Your task to perform on an android device: toggle notifications settings in the gmail app Image 0: 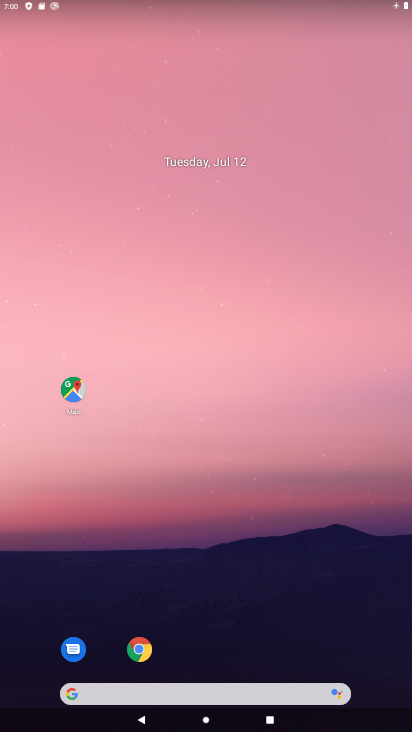
Step 0: drag from (174, 645) to (184, 76)
Your task to perform on an android device: toggle notifications settings in the gmail app Image 1: 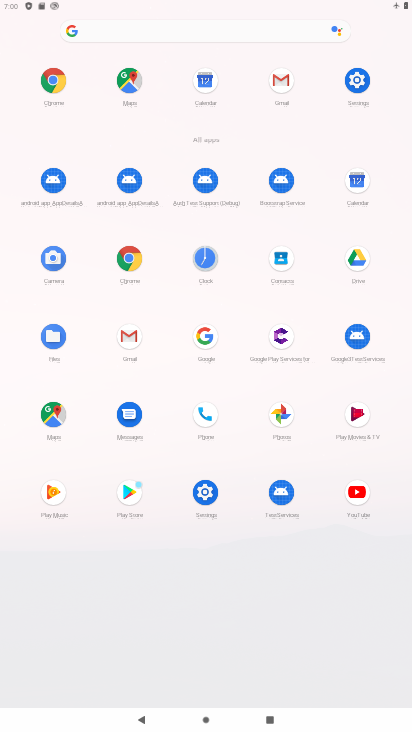
Step 1: click (280, 74)
Your task to perform on an android device: toggle notifications settings in the gmail app Image 2: 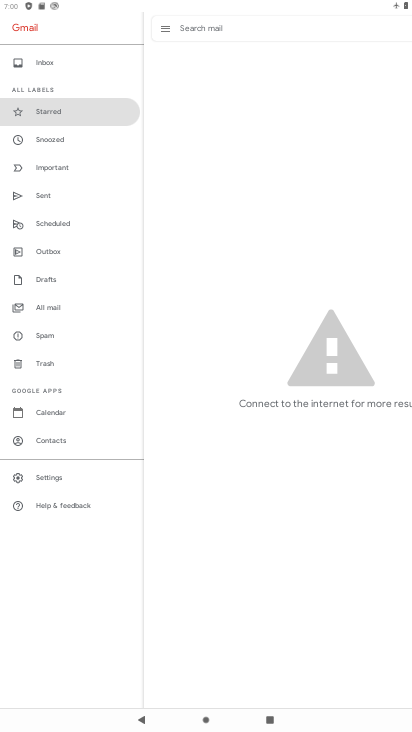
Step 2: click (49, 477)
Your task to perform on an android device: toggle notifications settings in the gmail app Image 3: 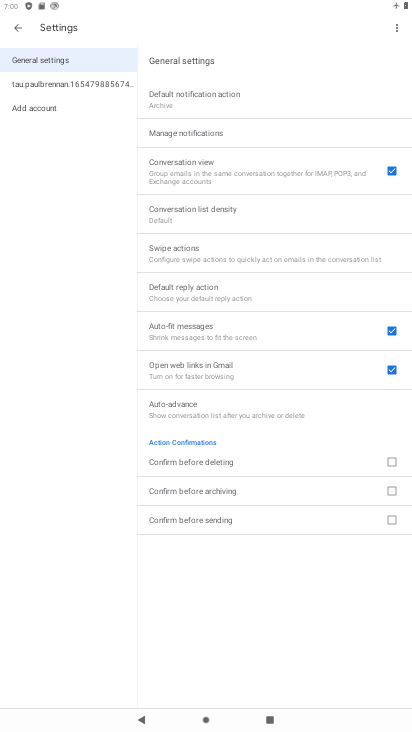
Step 3: click (91, 83)
Your task to perform on an android device: toggle notifications settings in the gmail app Image 4: 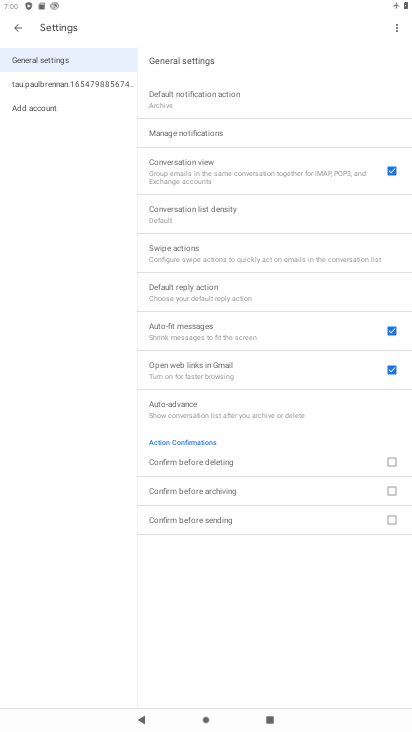
Step 4: click (91, 83)
Your task to perform on an android device: toggle notifications settings in the gmail app Image 5: 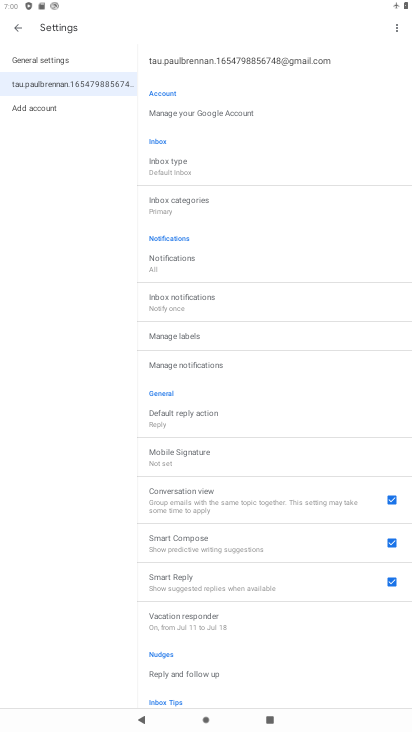
Step 5: click (185, 367)
Your task to perform on an android device: toggle notifications settings in the gmail app Image 6: 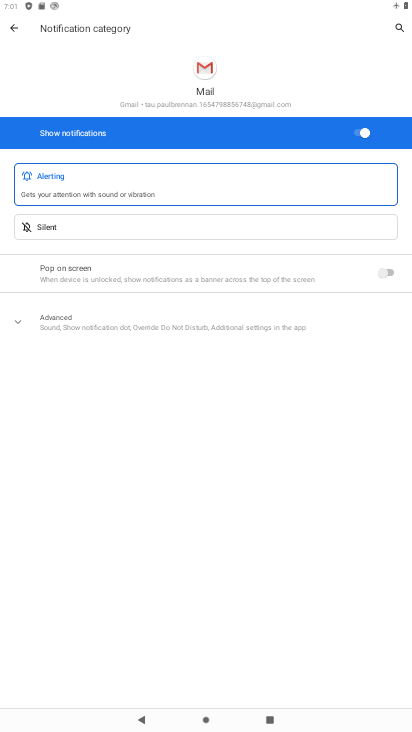
Step 6: click (359, 139)
Your task to perform on an android device: toggle notifications settings in the gmail app Image 7: 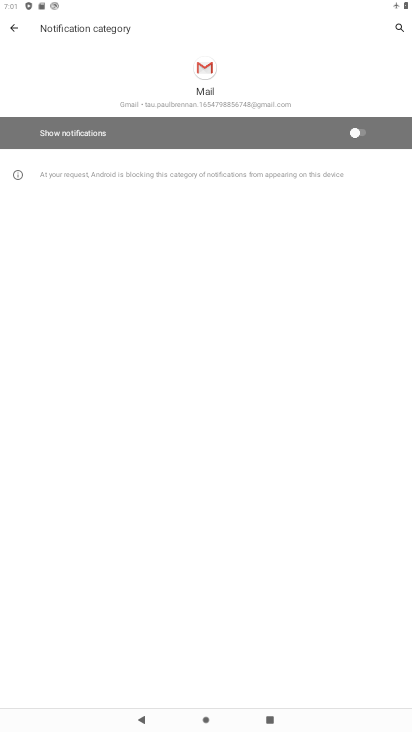
Step 7: task complete